Your task to perform on an android device: open a new tab in the chrome app Image 0: 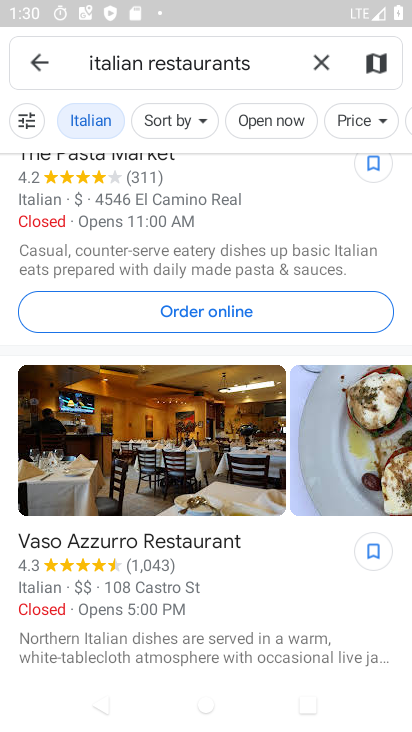
Step 0: press home button
Your task to perform on an android device: open a new tab in the chrome app Image 1: 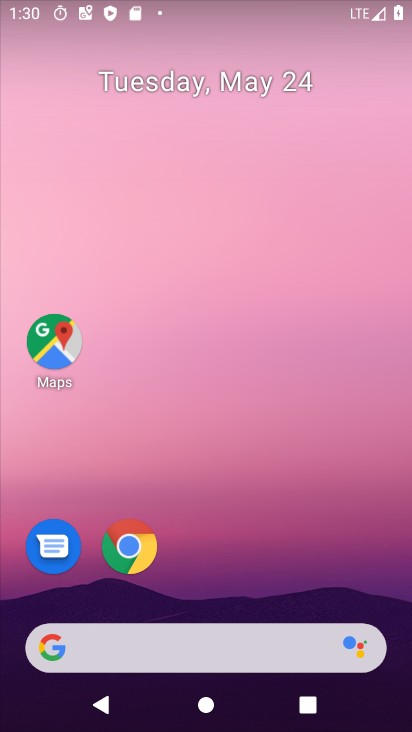
Step 1: click (117, 548)
Your task to perform on an android device: open a new tab in the chrome app Image 2: 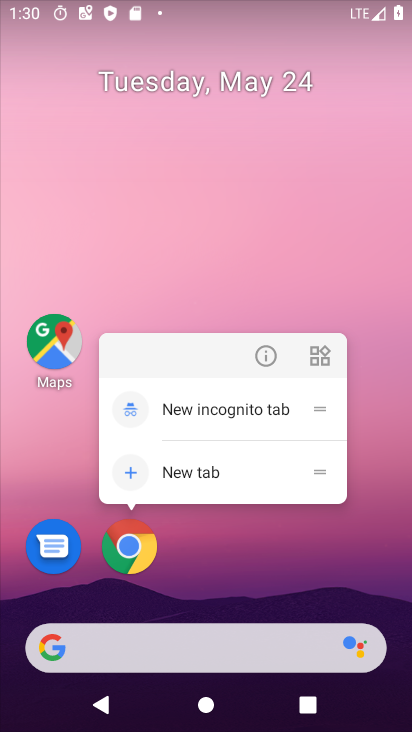
Step 2: click (279, 363)
Your task to perform on an android device: open a new tab in the chrome app Image 3: 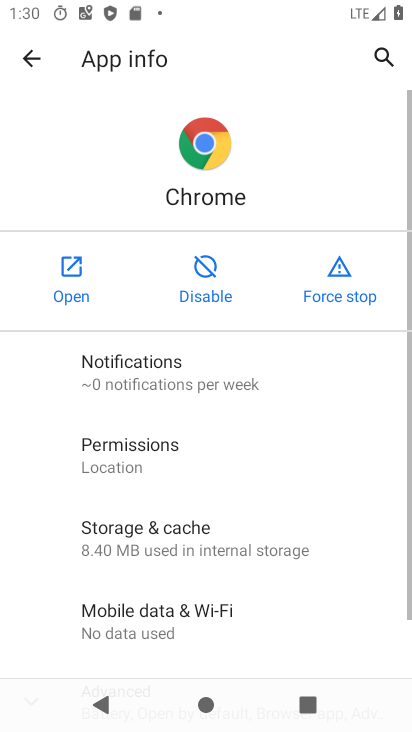
Step 3: click (62, 281)
Your task to perform on an android device: open a new tab in the chrome app Image 4: 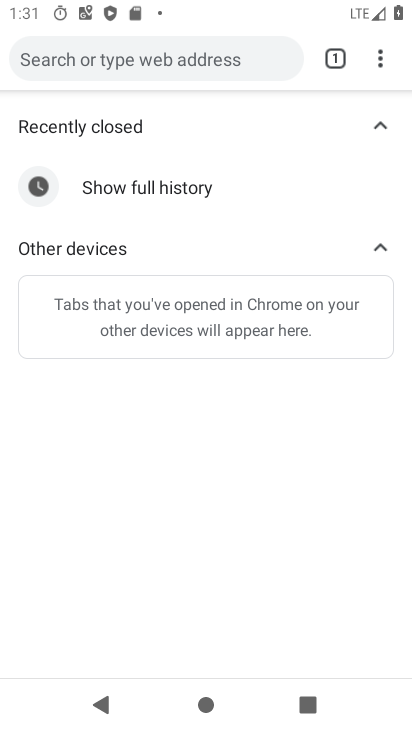
Step 4: drag from (262, 564) to (266, 235)
Your task to perform on an android device: open a new tab in the chrome app Image 5: 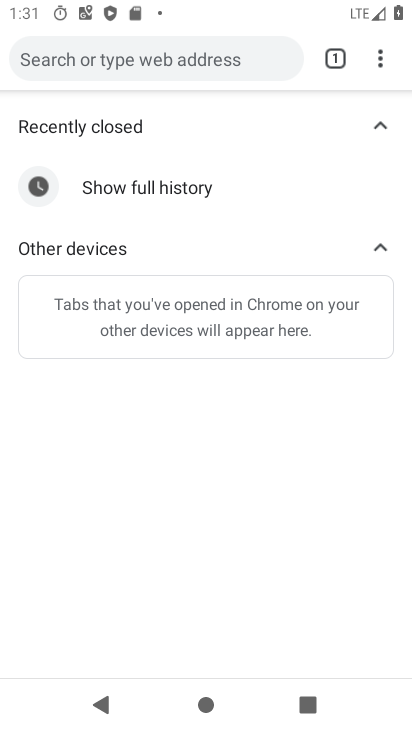
Step 5: click (351, 51)
Your task to perform on an android device: open a new tab in the chrome app Image 6: 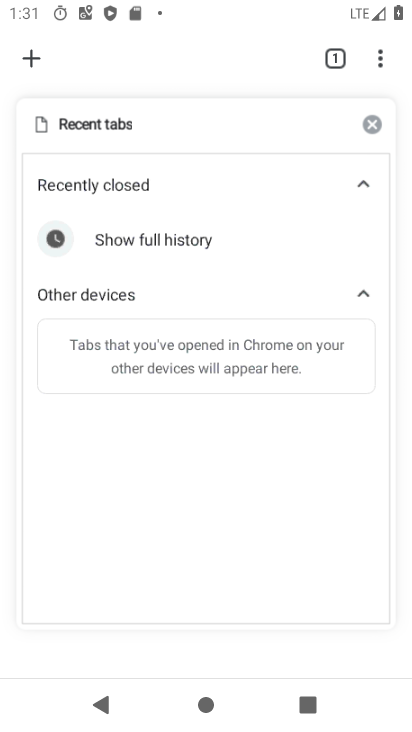
Step 6: click (30, 67)
Your task to perform on an android device: open a new tab in the chrome app Image 7: 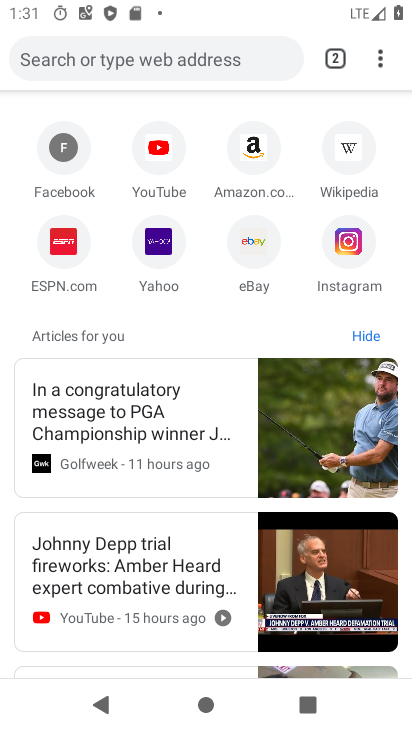
Step 7: task complete